Your task to perform on an android device: create a new album in the google photos Image 0: 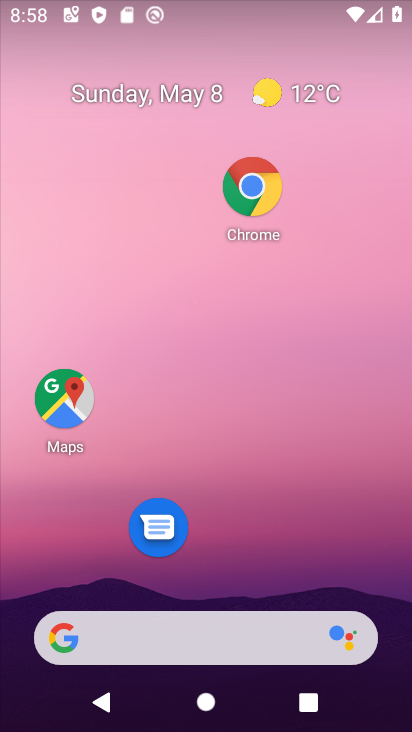
Step 0: drag from (296, 559) to (308, 324)
Your task to perform on an android device: create a new album in the google photos Image 1: 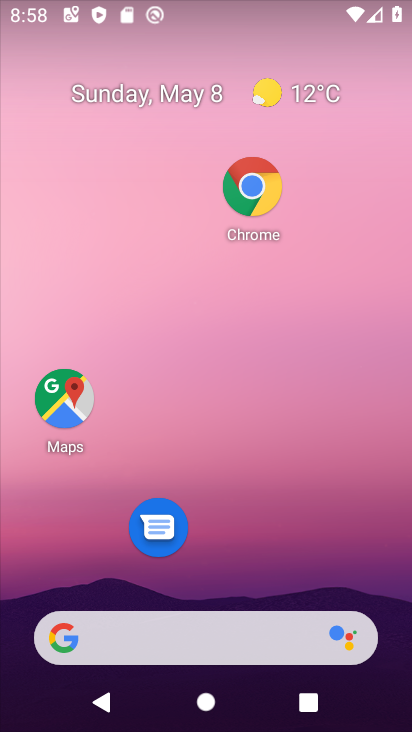
Step 1: drag from (304, 572) to (341, 318)
Your task to perform on an android device: create a new album in the google photos Image 2: 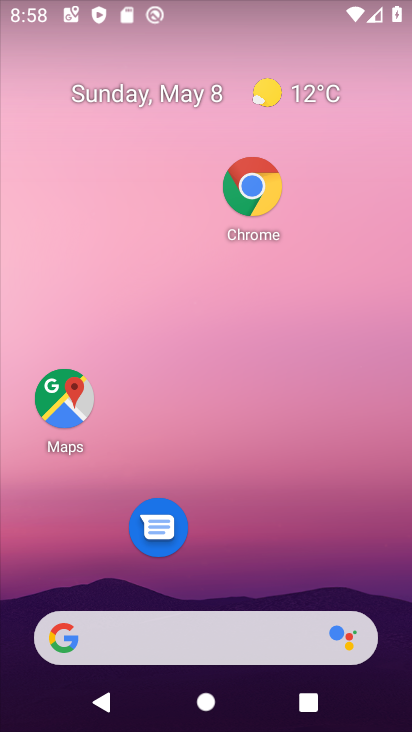
Step 2: drag from (220, 562) to (263, 328)
Your task to perform on an android device: create a new album in the google photos Image 3: 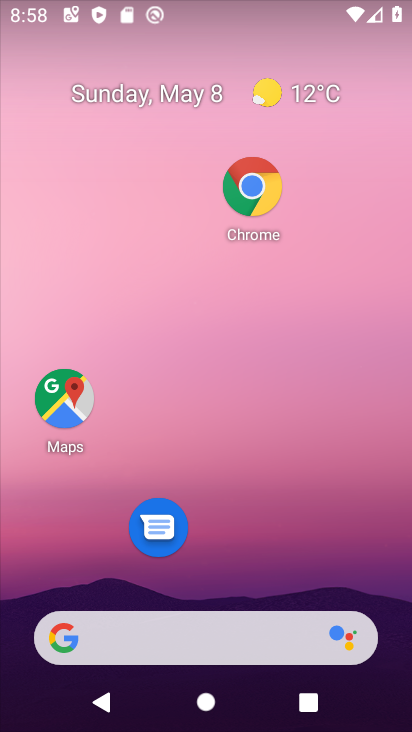
Step 3: drag from (231, 568) to (288, 168)
Your task to perform on an android device: create a new album in the google photos Image 4: 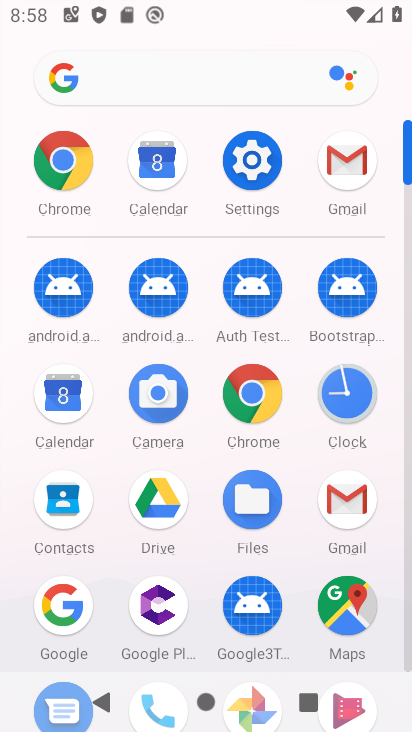
Step 4: drag from (258, 655) to (328, 234)
Your task to perform on an android device: create a new album in the google photos Image 5: 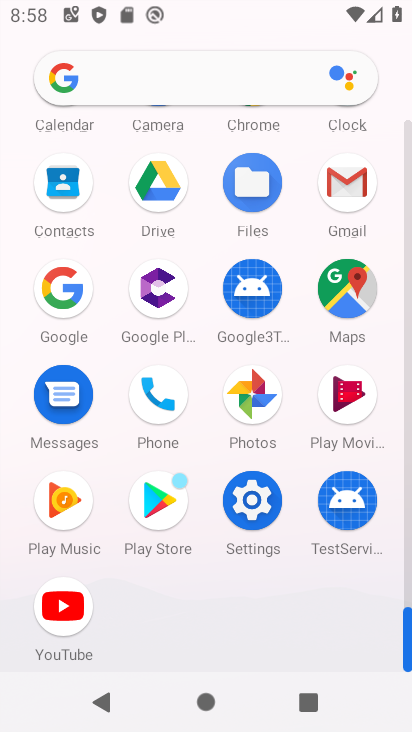
Step 5: click (241, 393)
Your task to perform on an android device: create a new album in the google photos Image 6: 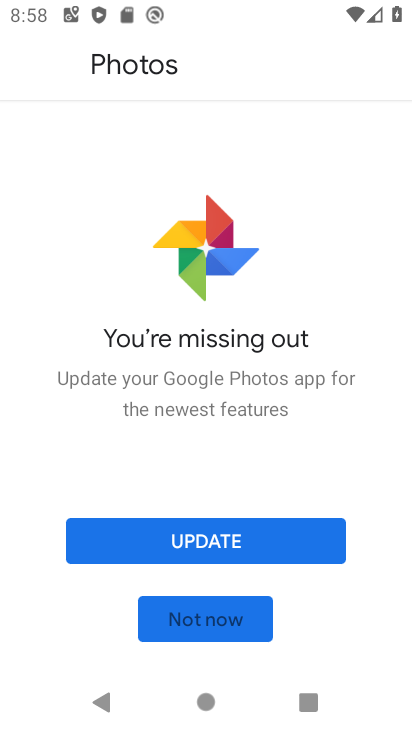
Step 6: click (218, 523)
Your task to perform on an android device: create a new album in the google photos Image 7: 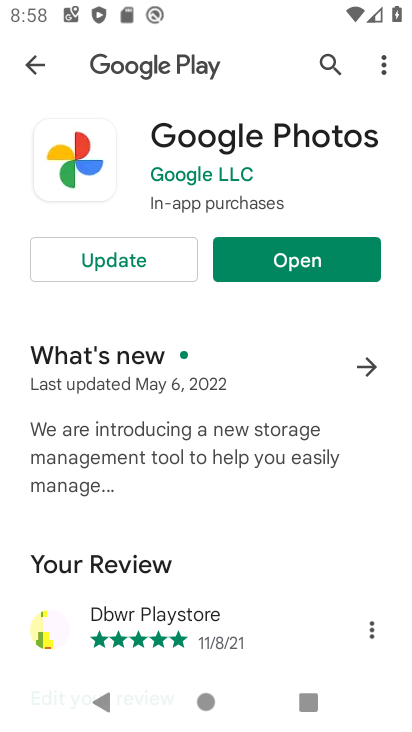
Step 7: press back button
Your task to perform on an android device: create a new album in the google photos Image 8: 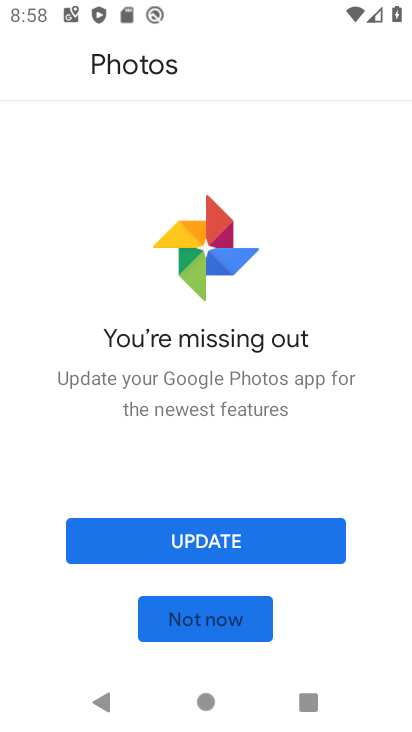
Step 8: click (202, 612)
Your task to perform on an android device: create a new album in the google photos Image 9: 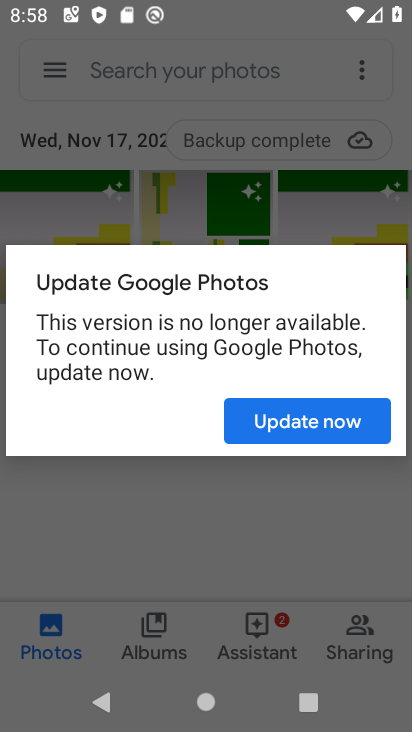
Step 9: click (302, 431)
Your task to perform on an android device: create a new album in the google photos Image 10: 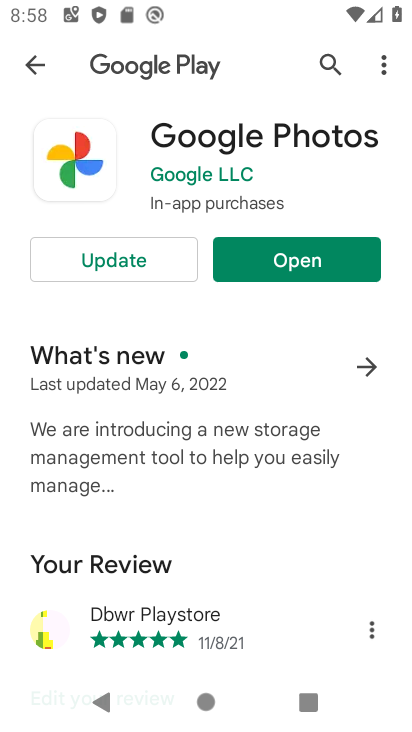
Step 10: press back button
Your task to perform on an android device: create a new album in the google photos Image 11: 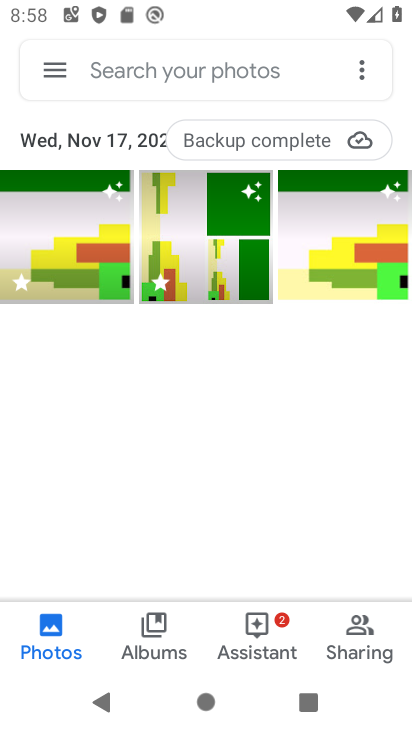
Step 11: click (65, 244)
Your task to perform on an android device: create a new album in the google photos Image 12: 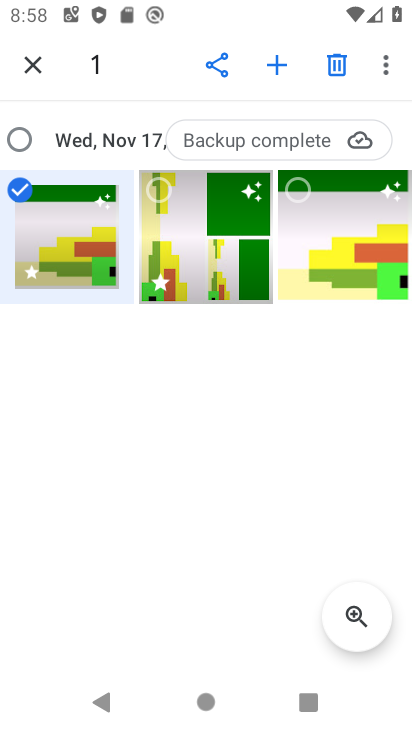
Step 12: click (273, 63)
Your task to perform on an android device: create a new album in the google photos Image 13: 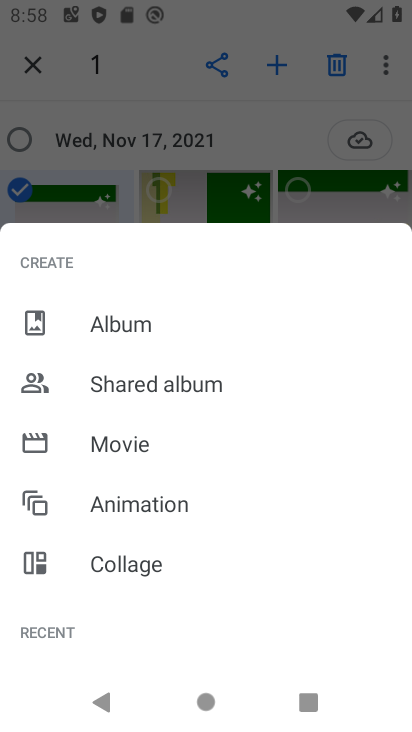
Step 13: click (122, 332)
Your task to perform on an android device: create a new album in the google photos Image 14: 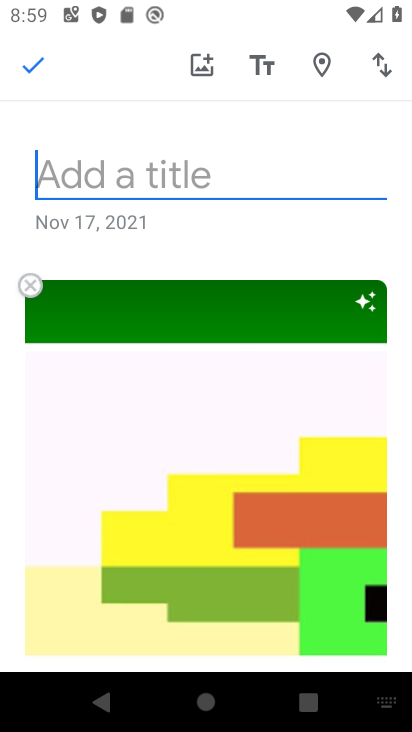
Step 14: click (178, 159)
Your task to perform on an android device: create a new album in the google photos Image 15: 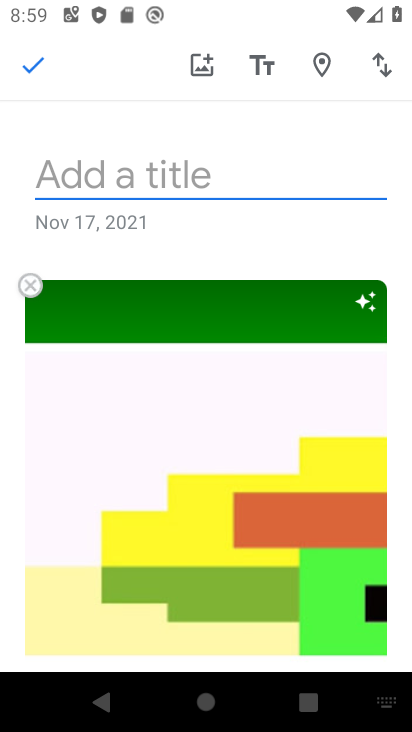
Step 15: type "ppppppppp"
Your task to perform on an android device: create a new album in the google photos Image 16: 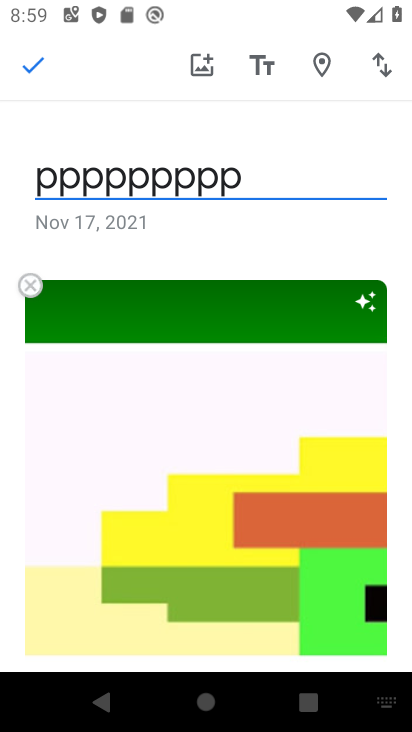
Step 16: click (27, 54)
Your task to perform on an android device: create a new album in the google photos Image 17: 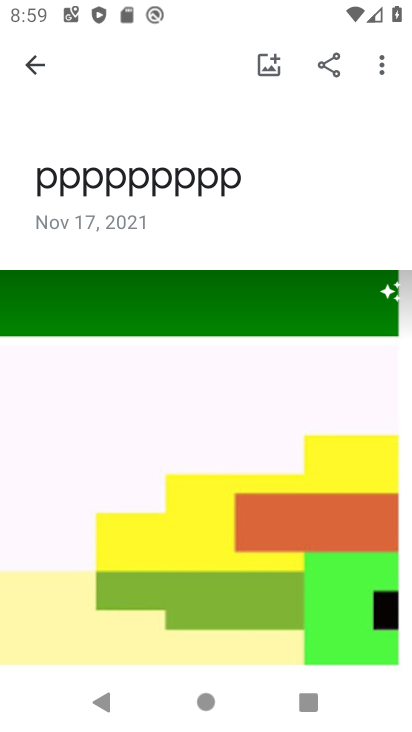
Step 17: task complete